Your task to perform on an android device: turn on sleep mode Image 0: 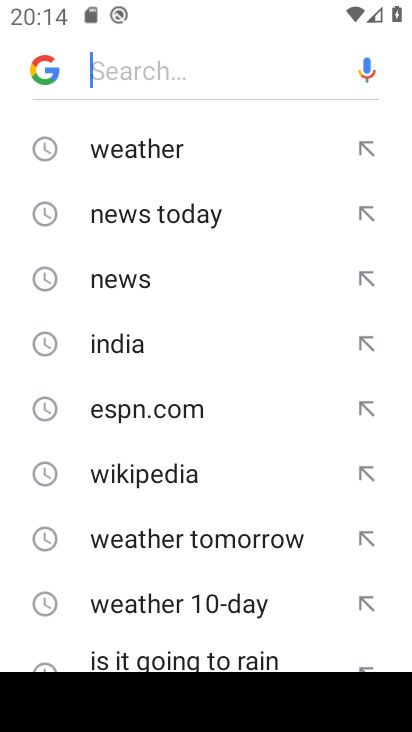
Step 0: press home button
Your task to perform on an android device: turn on sleep mode Image 1: 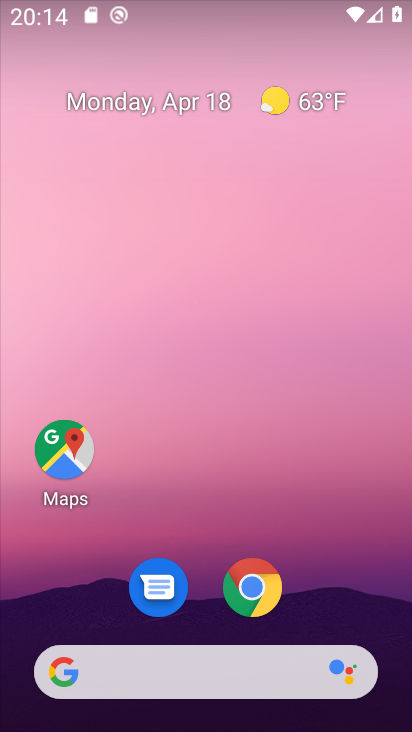
Step 1: drag from (347, 594) to (333, 188)
Your task to perform on an android device: turn on sleep mode Image 2: 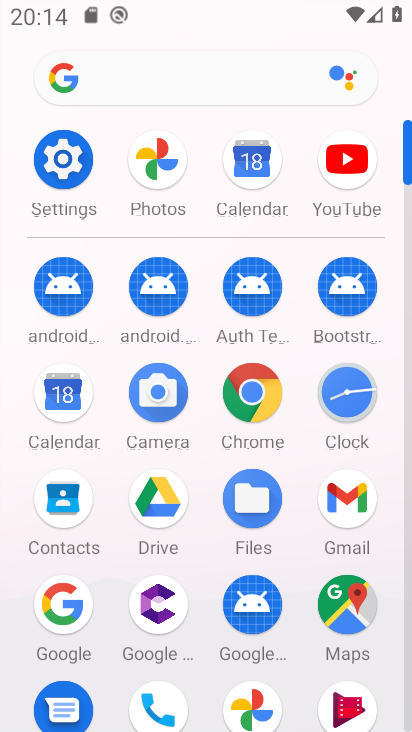
Step 2: click (104, 161)
Your task to perform on an android device: turn on sleep mode Image 3: 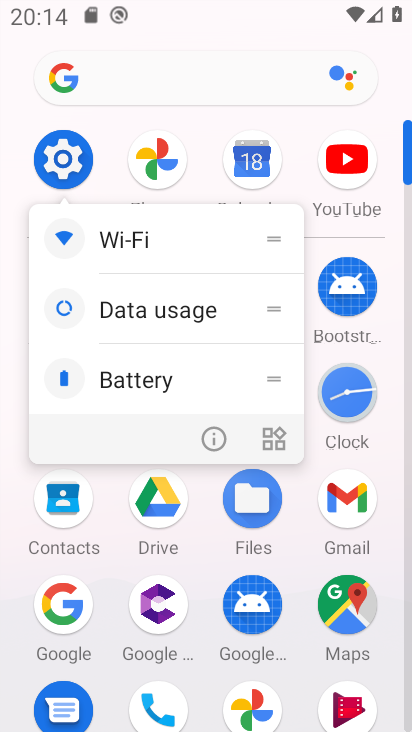
Step 3: click (75, 160)
Your task to perform on an android device: turn on sleep mode Image 4: 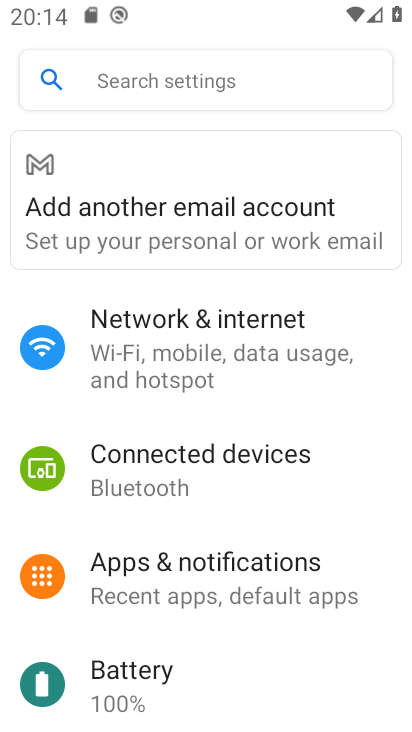
Step 4: drag from (240, 523) to (245, 303)
Your task to perform on an android device: turn on sleep mode Image 5: 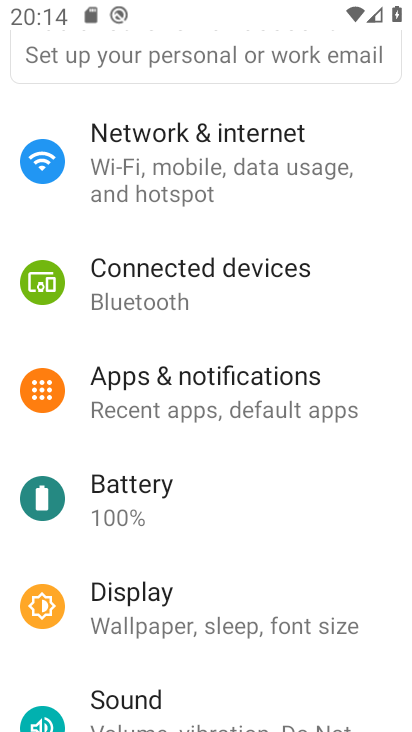
Step 5: click (231, 610)
Your task to perform on an android device: turn on sleep mode Image 6: 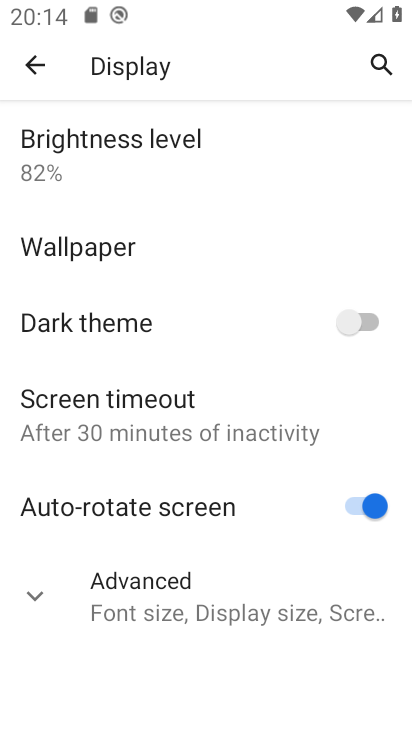
Step 6: click (220, 410)
Your task to perform on an android device: turn on sleep mode Image 7: 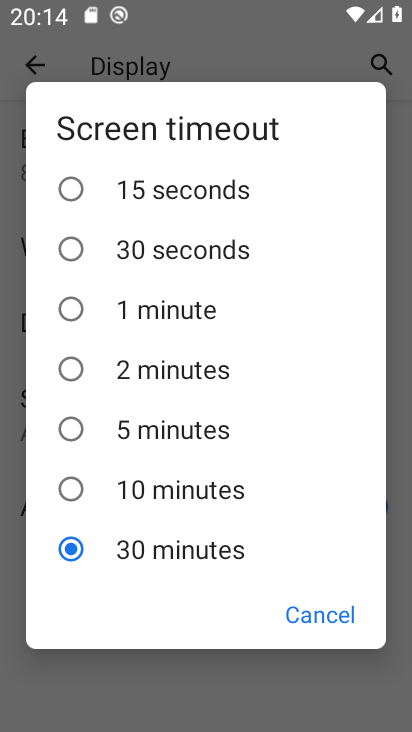
Step 7: drag from (253, 329) to (253, 705)
Your task to perform on an android device: turn on sleep mode Image 8: 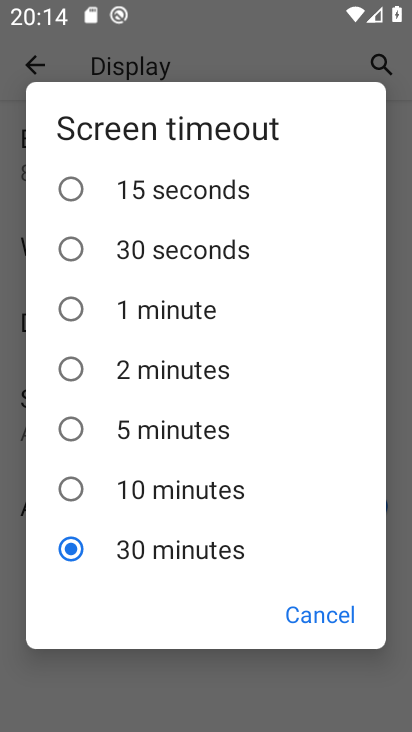
Step 8: drag from (227, 259) to (229, 676)
Your task to perform on an android device: turn on sleep mode Image 9: 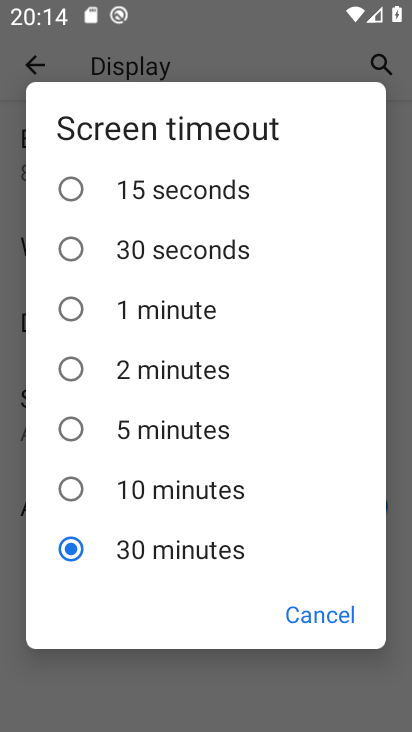
Step 9: click (215, 198)
Your task to perform on an android device: turn on sleep mode Image 10: 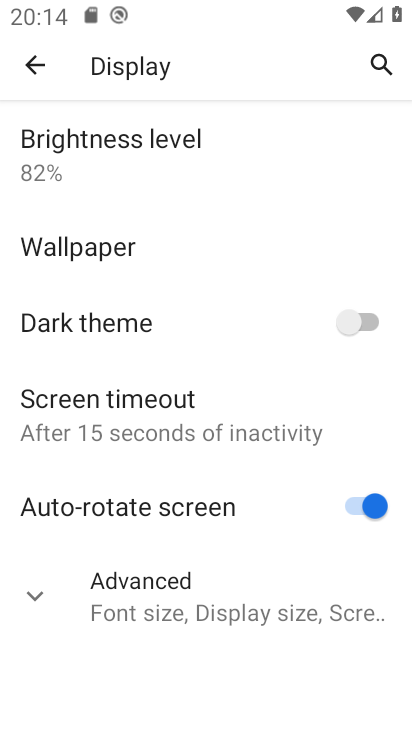
Step 10: task complete